Your task to perform on an android device: change text size in settings app Image 0: 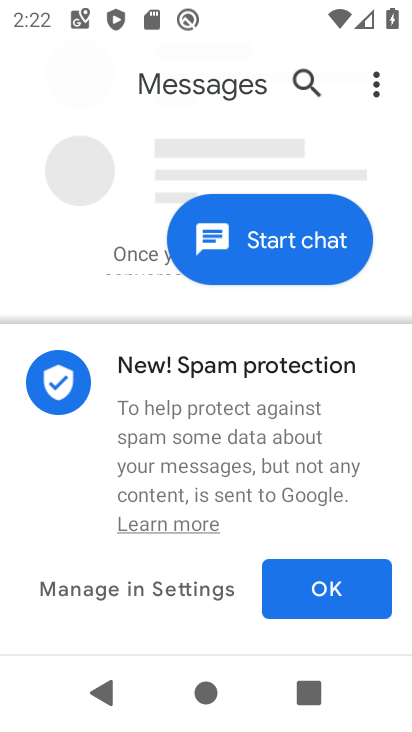
Step 0: press home button
Your task to perform on an android device: change text size in settings app Image 1: 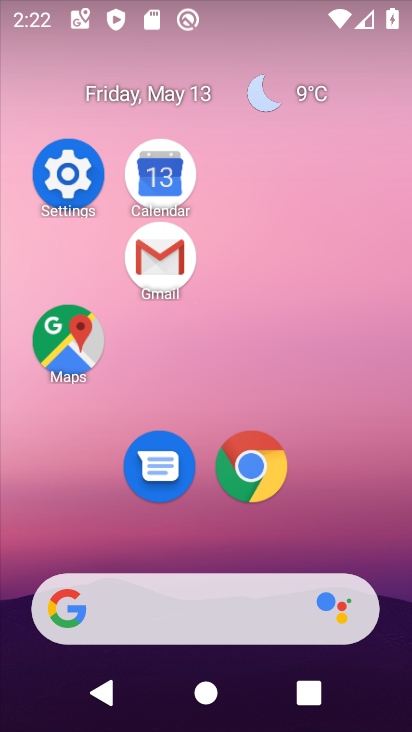
Step 1: click (85, 160)
Your task to perform on an android device: change text size in settings app Image 2: 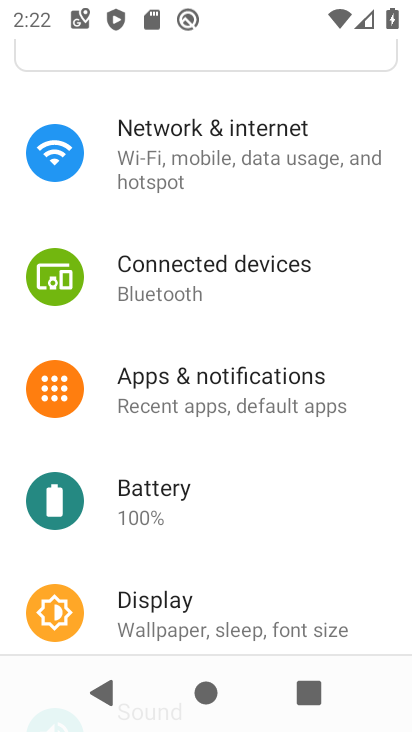
Step 2: click (218, 608)
Your task to perform on an android device: change text size in settings app Image 3: 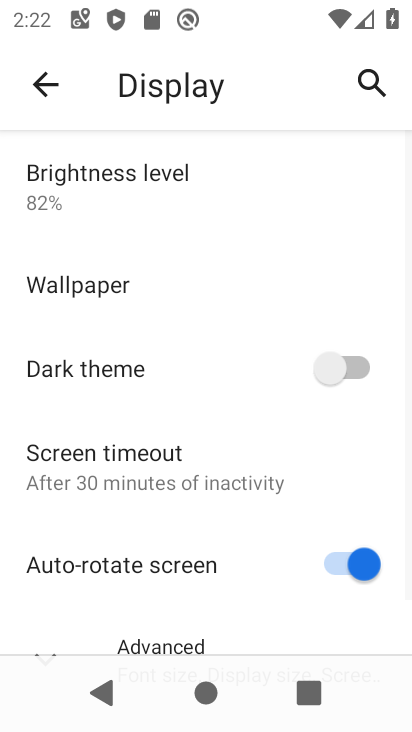
Step 3: drag from (229, 579) to (254, 295)
Your task to perform on an android device: change text size in settings app Image 4: 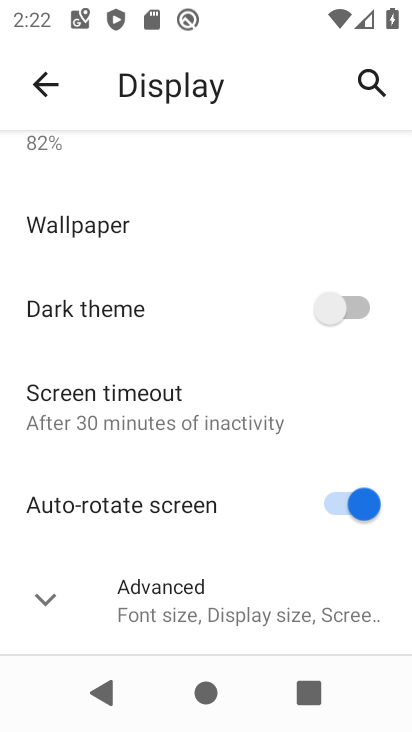
Step 4: click (192, 618)
Your task to perform on an android device: change text size in settings app Image 5: 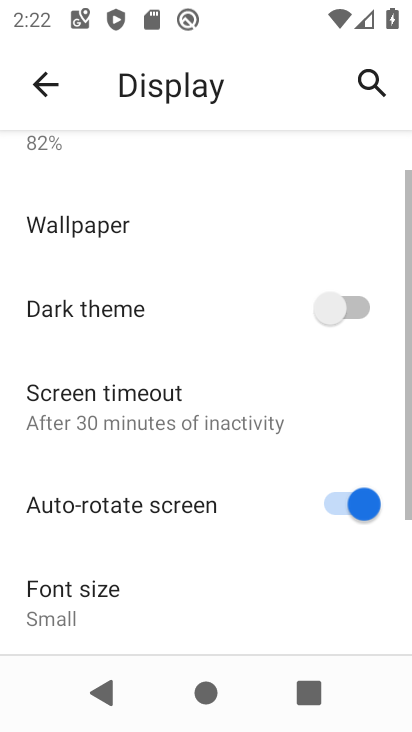
Step 5: drag from (192, 618) to (230, 306)
Your task to perform on an android device: change text size in settings app Image 6: 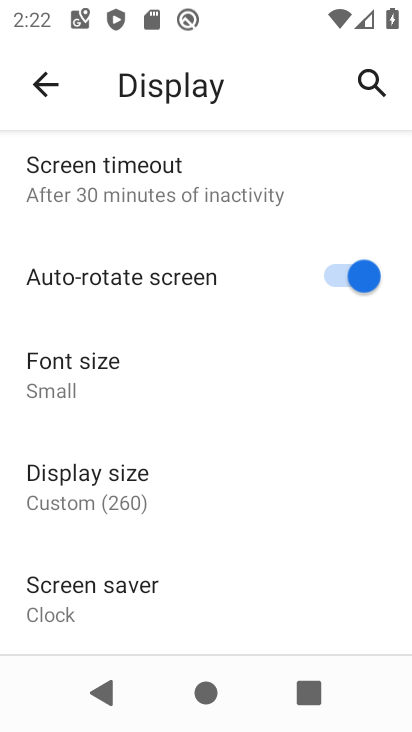
Step 6: click (163, 368)
Your task to perform on an android device: change text size in settings app Image 7: 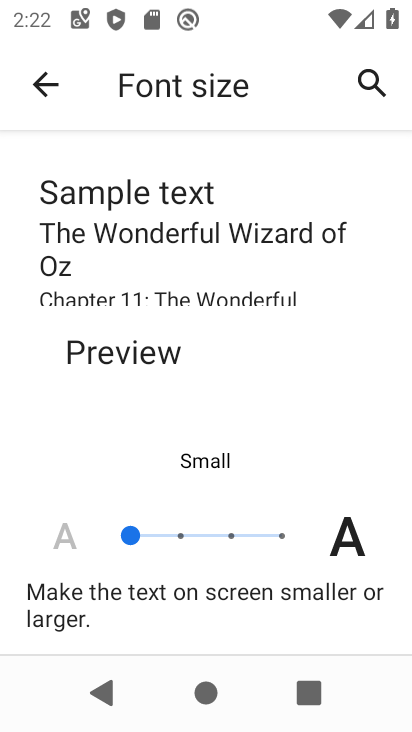
Step 7: click (171, 538)
Your task to perform on an android device: change text size in settings app Image 8: 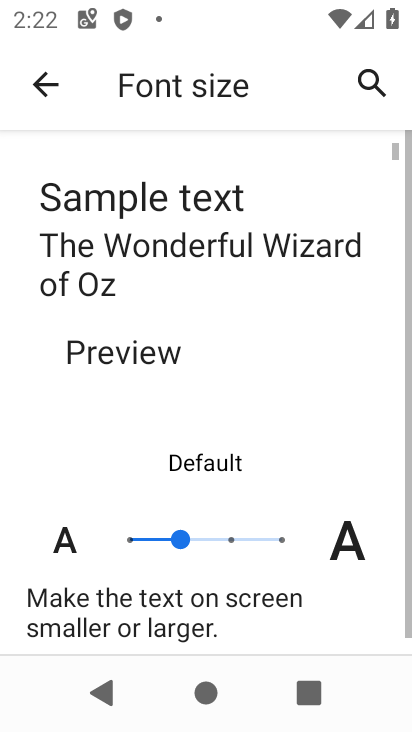
Step 8: task complete